Your task to perform on an android device: change notifications settings Image 0: 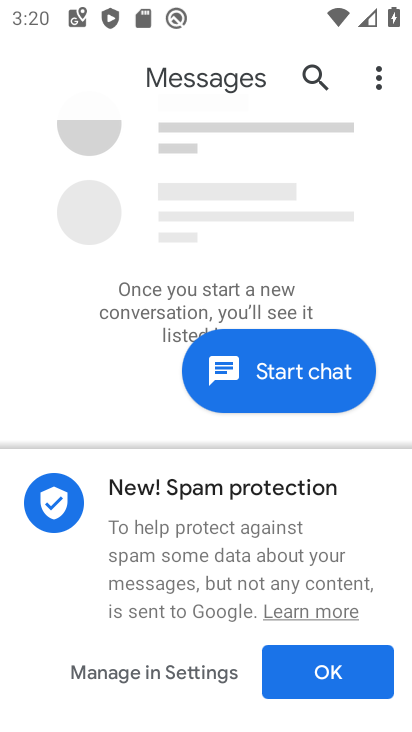
Step 0: press home button
Your task to perform on an android device: change notifications settings Image 1: 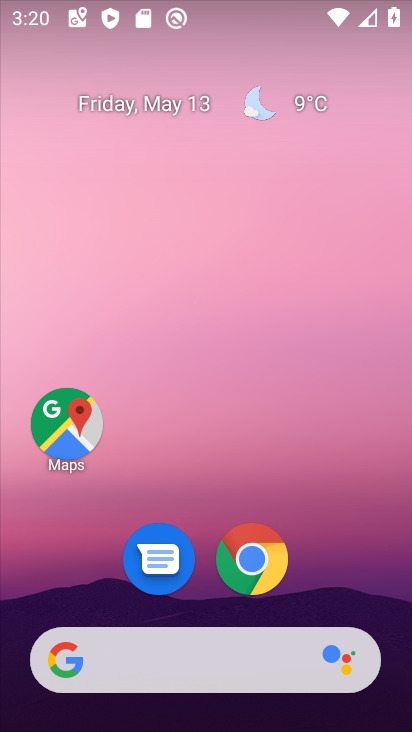
Step 1: drag from (393, 627) to (292, 71)
Your task to perform on an android device: change notifications settings Image 2: 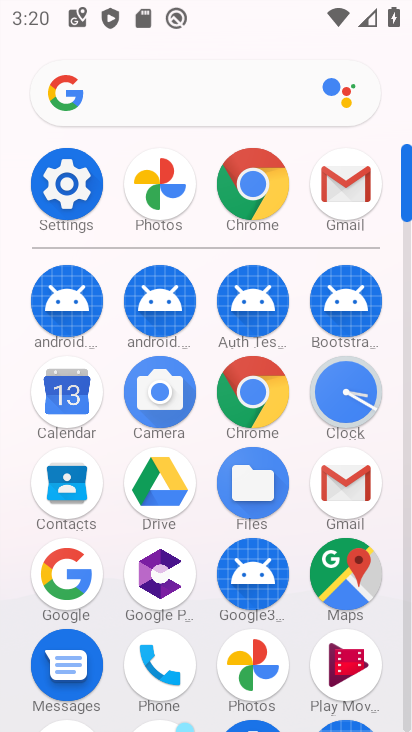
Step 2: click (407, 704)
Your task to perform on an android device: change notifications settings Image 3: 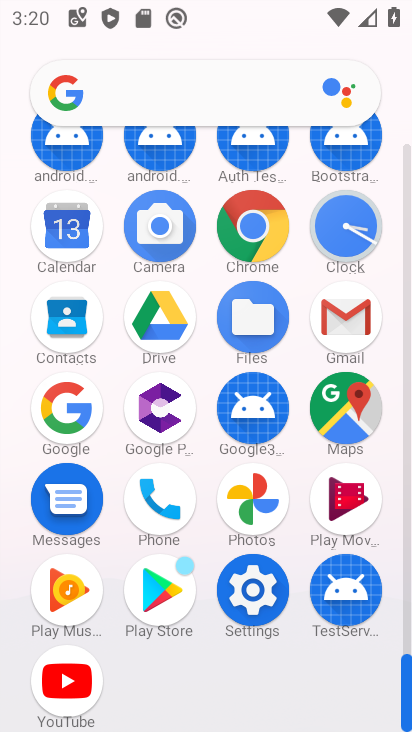
Step 3: click (250, 586)
Your task to perform on an android device: change notifications settings Image 4: 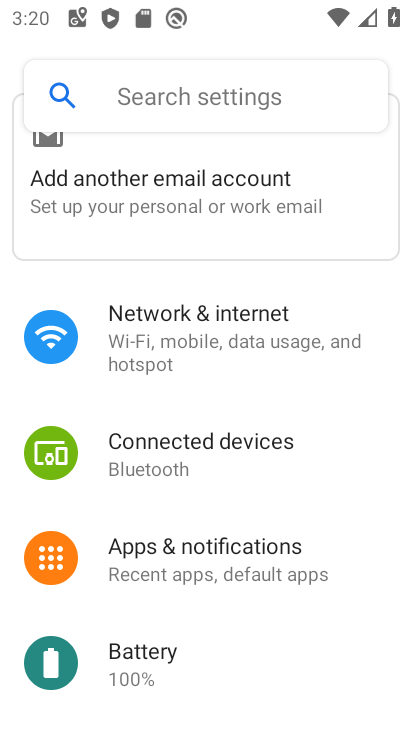
Step 4: click (195, 544)
Your task to perform on an android device: change notifications settings Image 5: 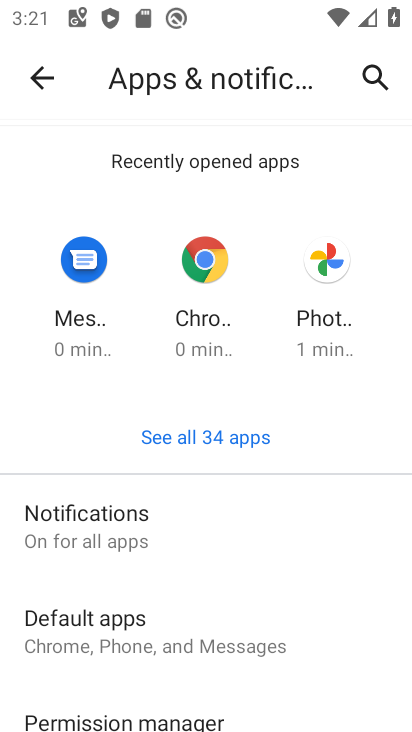
Step 5: click (96, 519)
Your task to perform on an android device: change notifications settings Image 6: 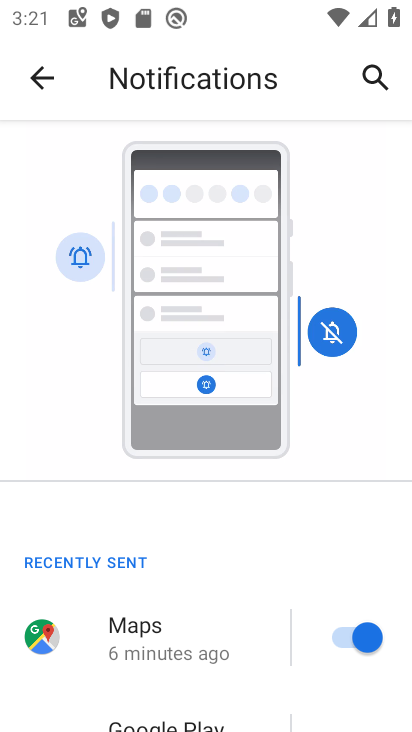
Step 6: drag from (291, 678) to (284, 253)
Your task to perform on an android device: change notifications settings Image 7: 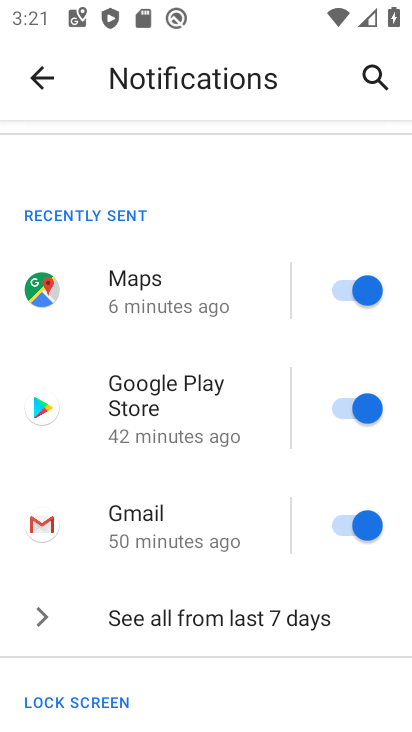
Step 7: drag from (299, 597) to (262, 124)
Your task to perform on an android device: change notifications settings Image 8: 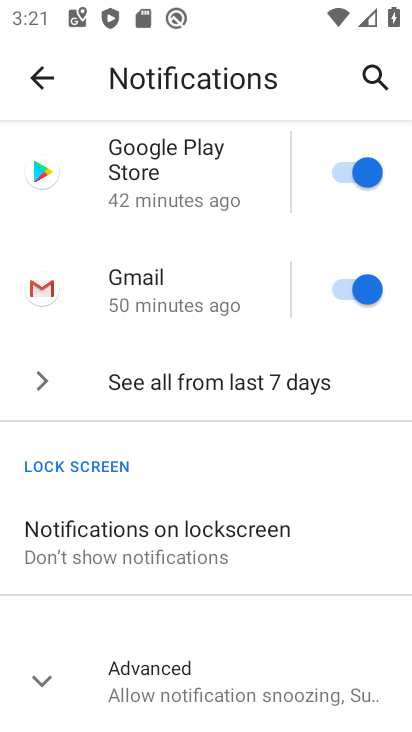
Step 8: click (27, 672)
Your task to perform on an android device: change notifications settings Image 9: 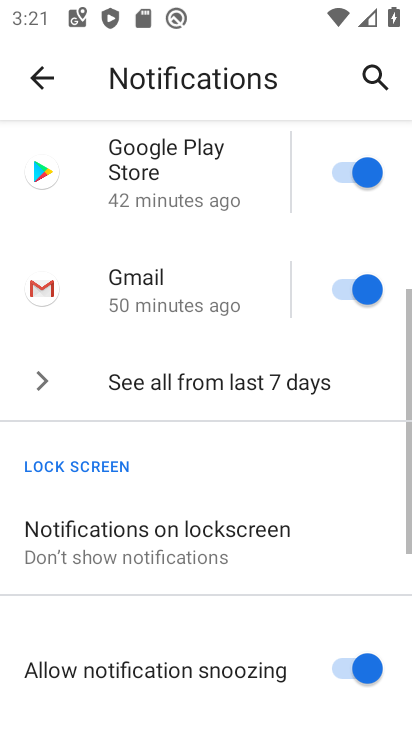
Step 9: drag from (371, 687) to (280, 201)
Your task to perform on an android device: change notifications settings Image 10: 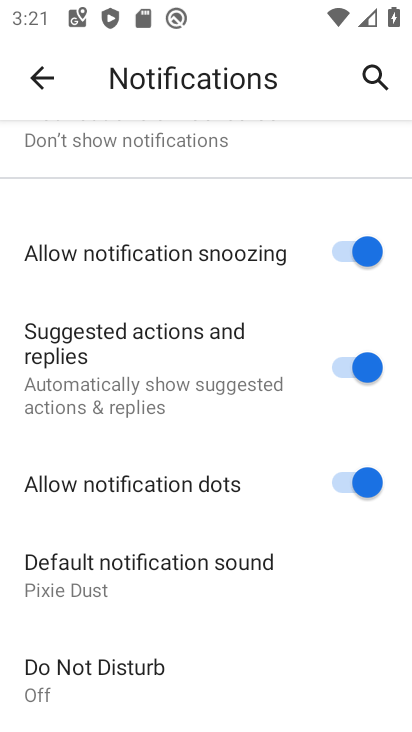
Step 10: click (337, 489)
Your task to perform on an android device: change notifications settings Image 11: 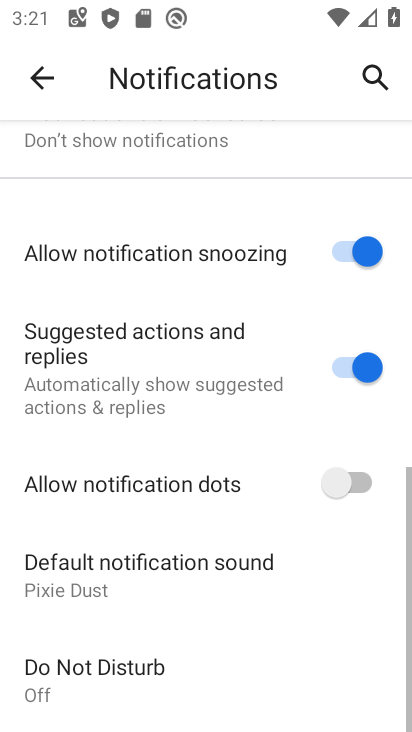
Step 11: click (339, 246)
Your task to perform on an android device: change notifications settings Image 12: 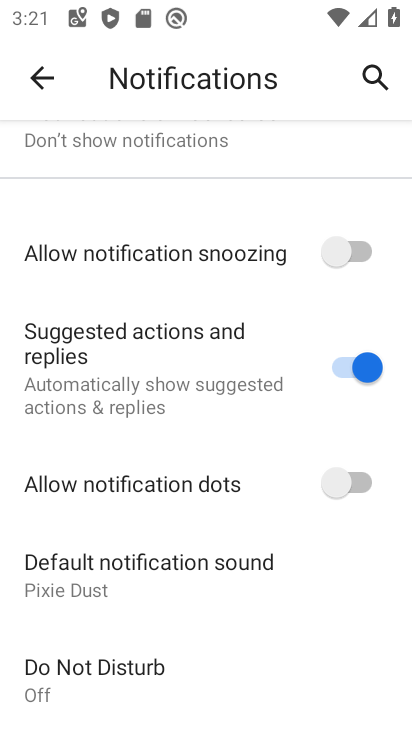
Step 12: task complete